Your task to perform on an android device: Play the last video I watched on Youtube Image 0: 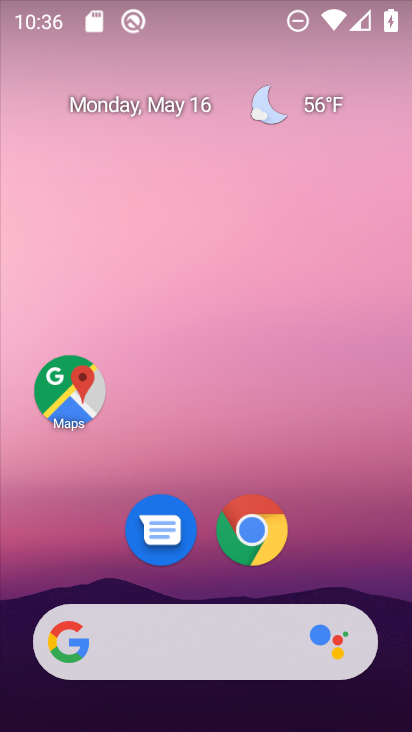
Step 0: drag from (229, 650) to (260, 119)
Your task to perform on an android device: Play the last video I watched on Youtube Image 1: 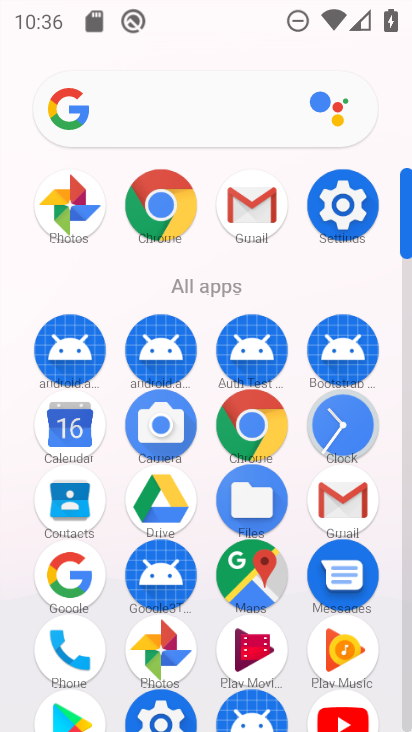
Step 1: click (339, 703)
Your task to perform on an android device: Play the last video I watched on Youtube Image 2: 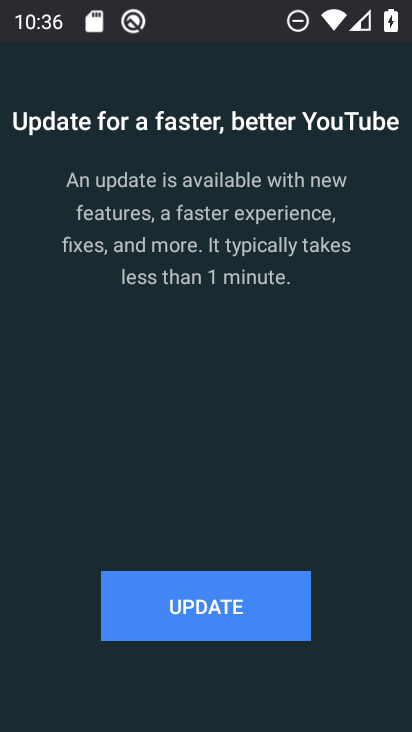
Step 2: click (270, 596)
Your task to perform on an android device: Play the last video I watched on Youtube Image 3: 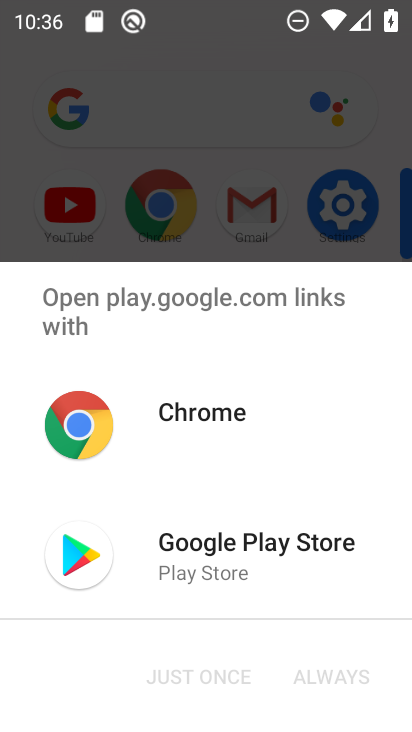
Step 3: click (142, 560)
Your task to perform on an android device: Play the last video I watched on Youtube Image 4: 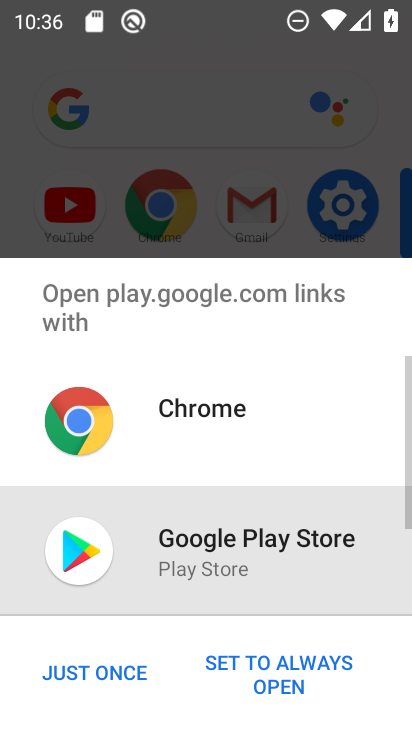
Step 4: click (110, 670)
Your task to perform on an android device: Play the last video I watched on Youtube Image 5: 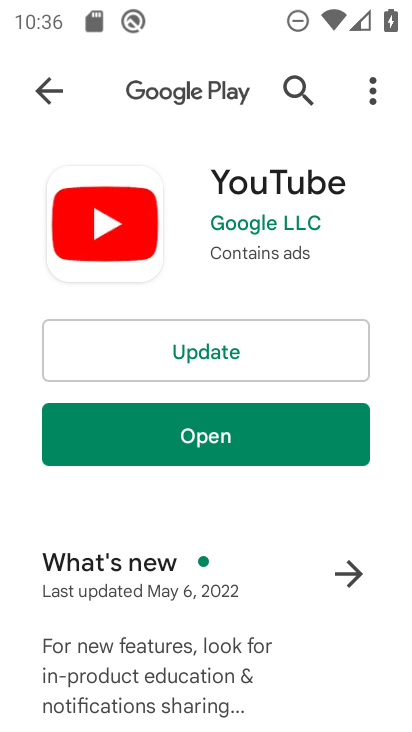
Step 5: click (183, 376)
Your task to perform on an android device: Play the last video I watched on Youtube Image 6: 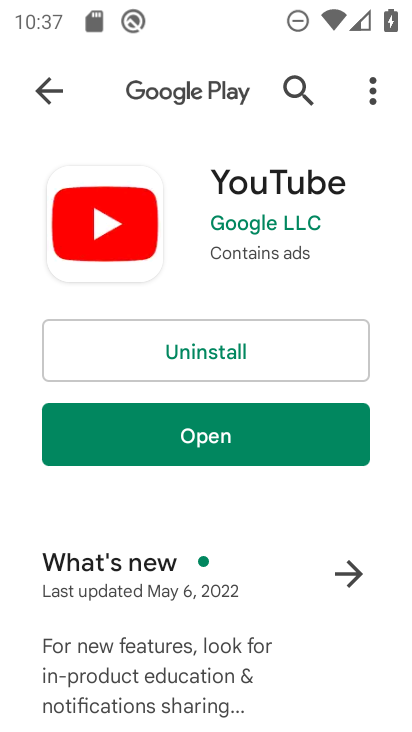
Step 6: click (351, 468)
Your task to perform on an android device: Play the last video I watched on Youtube Image 7: 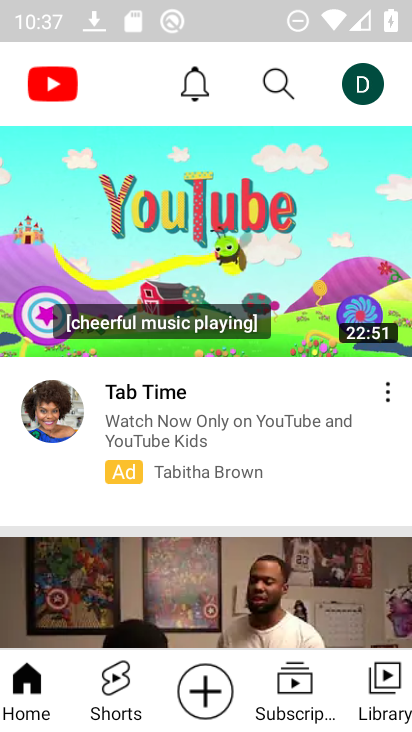
Step 7: click (369, 699)
Your task to perform on an android device: Play the last video I watched on Youtube Image 8: 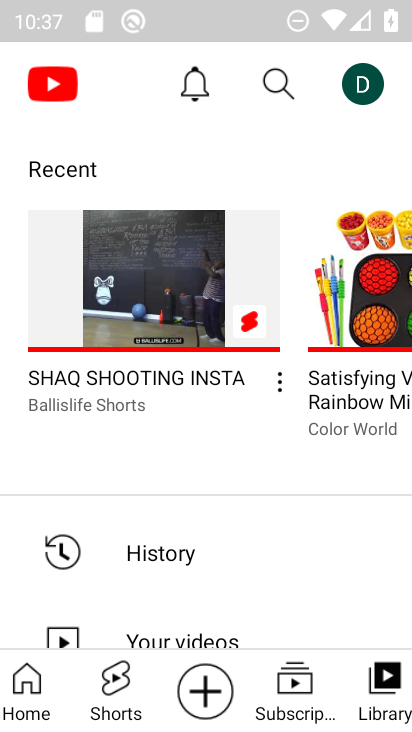
Step 8: click (149, 551)
Your task to perform on an android device: Play the last video I watched on Youtube Image 9: 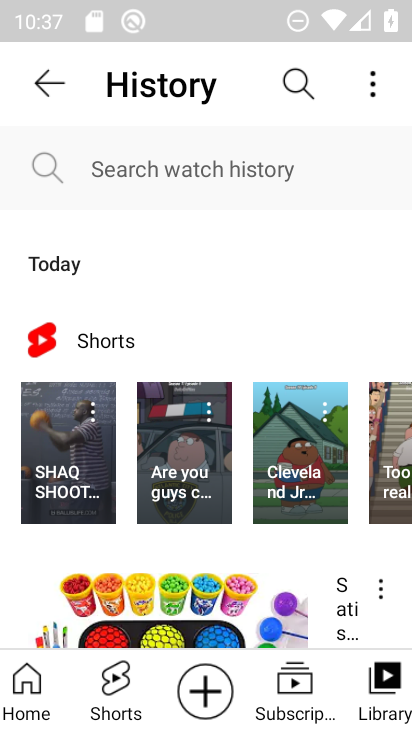
Step 9: drag from (108, 336) to (26, 0)
Your task to perform on an android device: Play the last video I watched on Youtube Image 10: 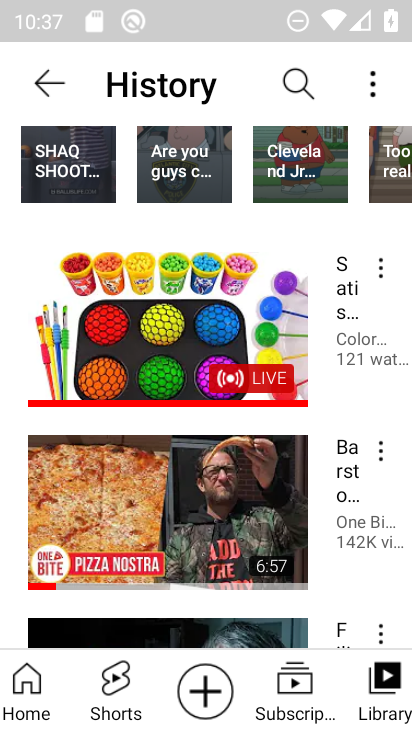
Step 10: click (206, 263)
Your task to perform on an android device: Play the last video I watched on Youtube Image 11: 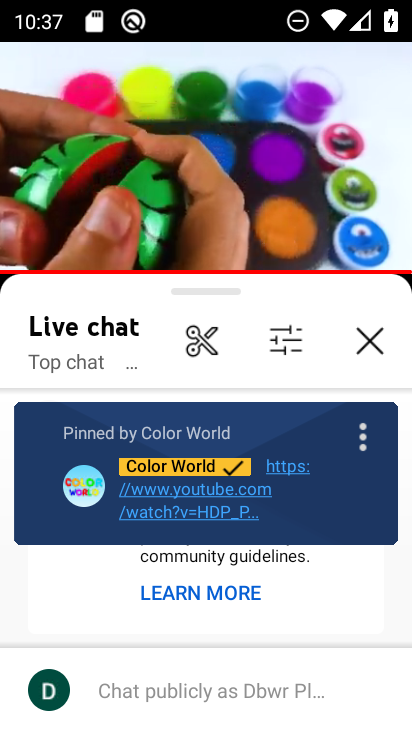
Step 11: task complete